Your task to perform on an android device: change timer sound Image 0: 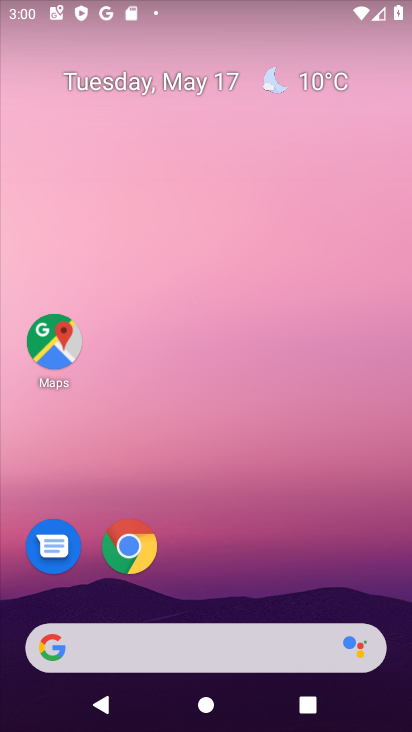
Step 0: drag from (220, 581) to (278, 140)
Your task to perform on an android device: change timer sound Image 1: 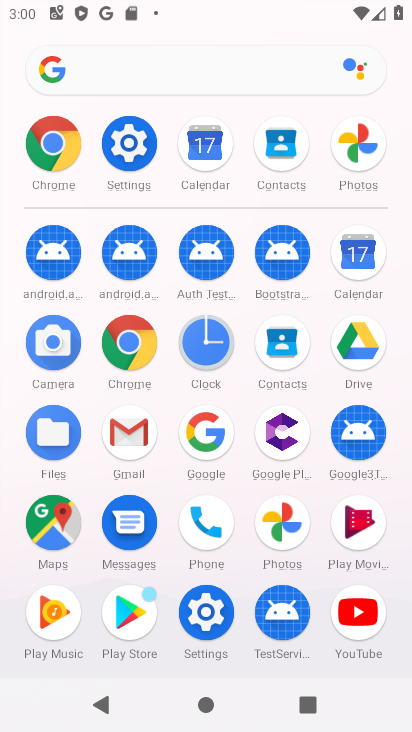
Step 1: click (200, 360)
Your task to perform on an android device: change timer sound Image 2: 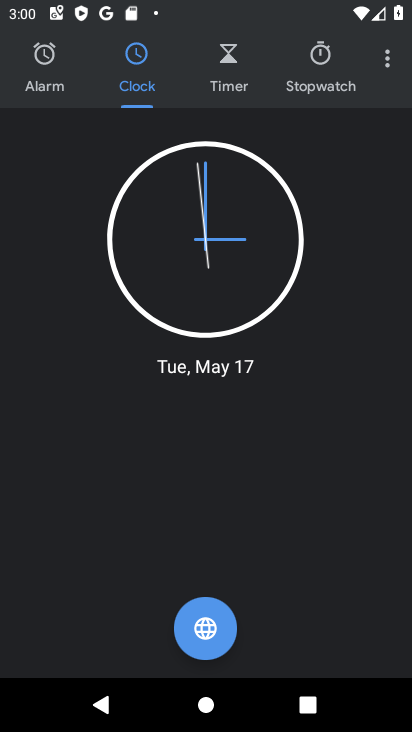
Step 2: click (385, 55)
Your task to perform on an android device: change timer sound Image 3: 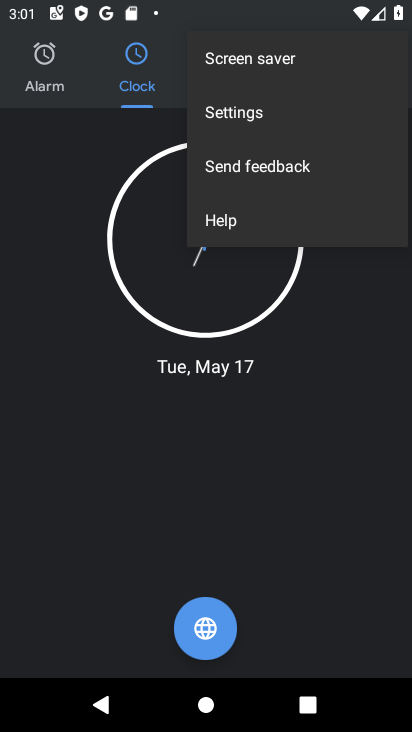
Step 3: click (247, 103)
Your task to perform on an android device: change timer sound Image 4: 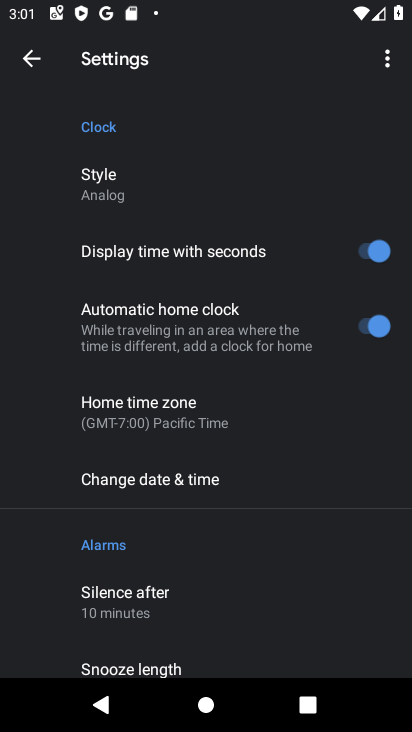
Step 4: drag from (245, 576) to (317, 279)
Your task to perform on an android device: change timer sound Image 5: 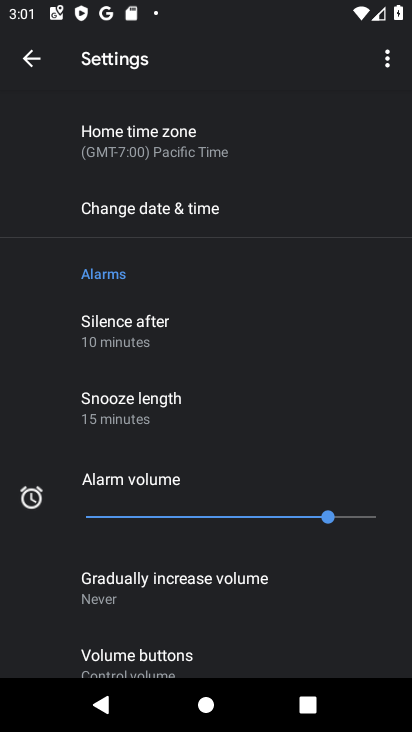
Step 5: drag from (171, 553) to (225, 246)
Your task to perform on an android device: change timer sound Image 6: 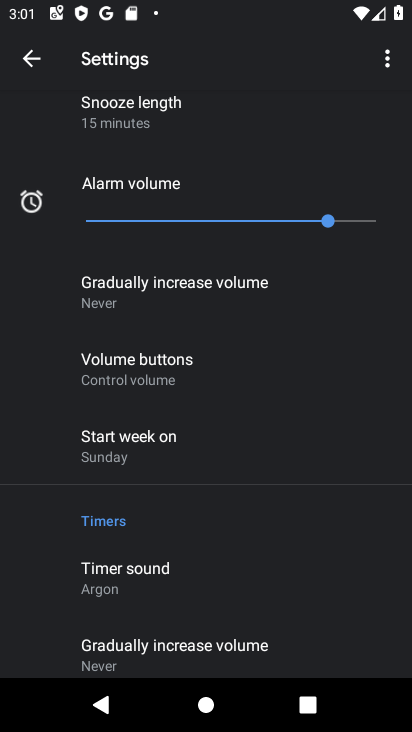
Step 6: click (137, 582)
Your task to perform on an android device: change timer sound Image 7: 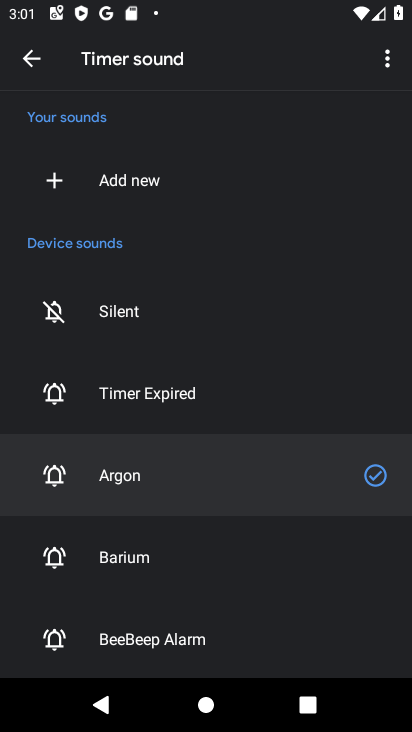
Step 7: click (154, 637)
Your task to perform on an android device: change timer sound Image 8: 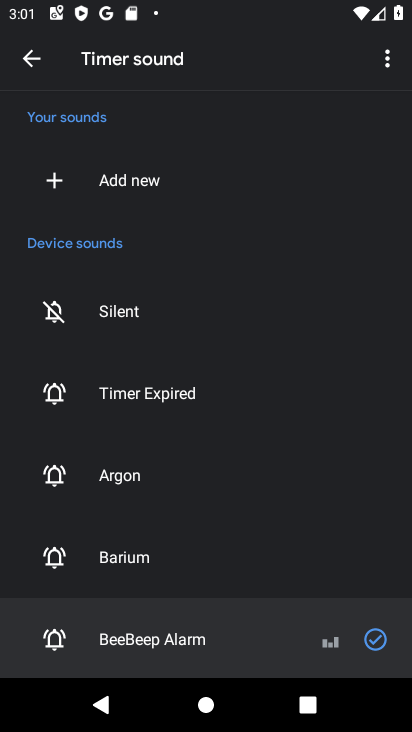
Step 8: task complete